Your task to perform on an android device: turn off improve location accuracy Image 0: 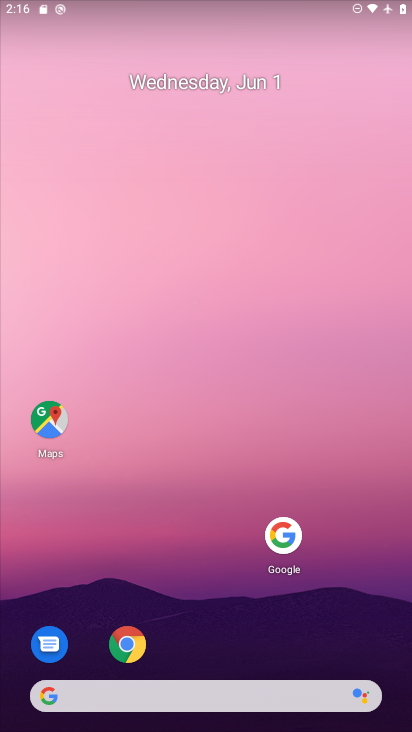
Step 0: drag from (164, 688) to (236, 198)
Your task to perform on an android device: turn off improve location accuracy Image 1: 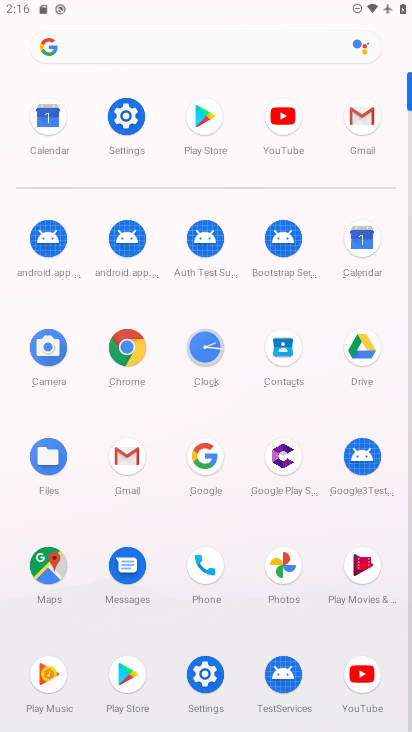
Step 1: click (122, 118)
Your task to perform on an android device: turn off improve location accuracy Image 2: 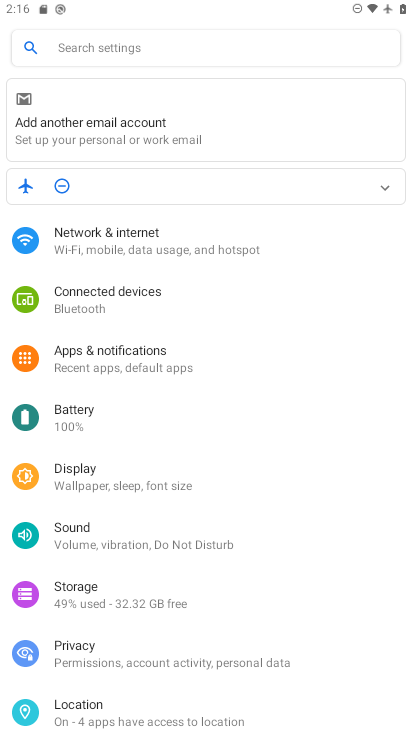
Step 2: drag from (180, 623) to (192, 157)
Your task to perform on an android device: turn off improve location accuracy Image 3: 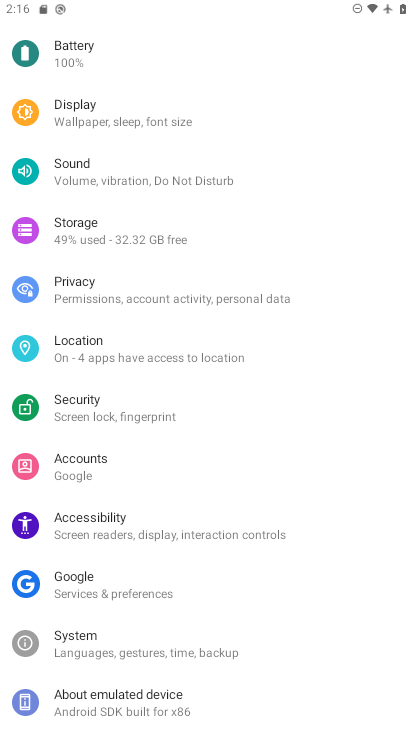
Step 3: click (82, 352)
Your task to perform on an android device: turn off improve location accuracy Image 4: 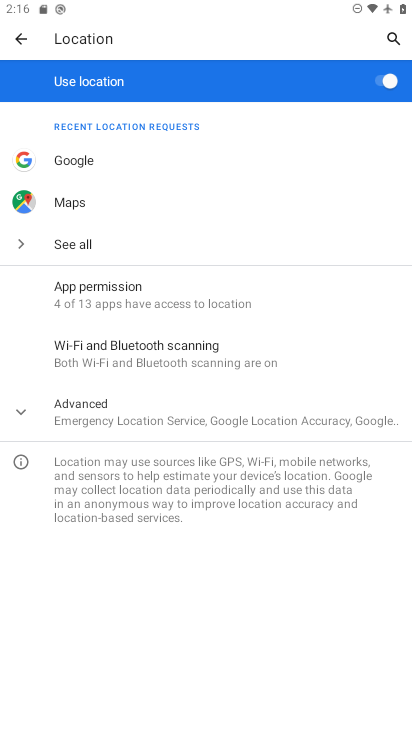
Step 4: click (96, 417)
Your task to perform on an android device: turn off improve location accuracy Image 5: 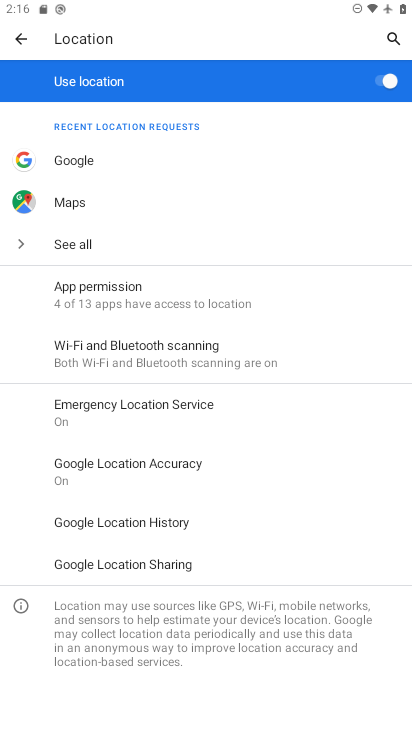
Step 5: click (126, 463)
Your task to perform on an android device: turn off improve location accuracy Image 6: 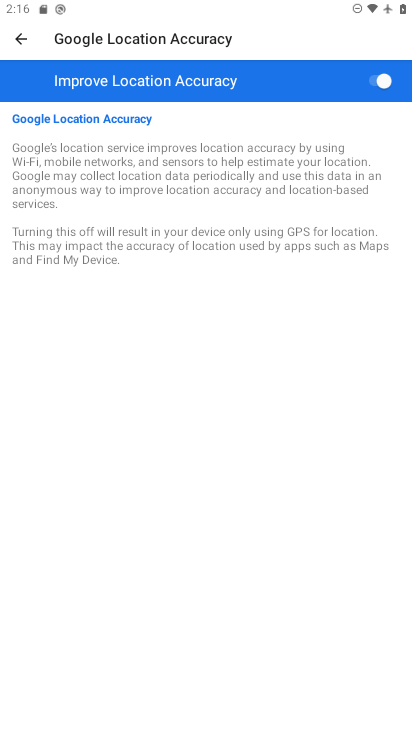
Step 6: click (374, 85)
Your task to perform on an android device: turn off improve location accuracy Image 7: 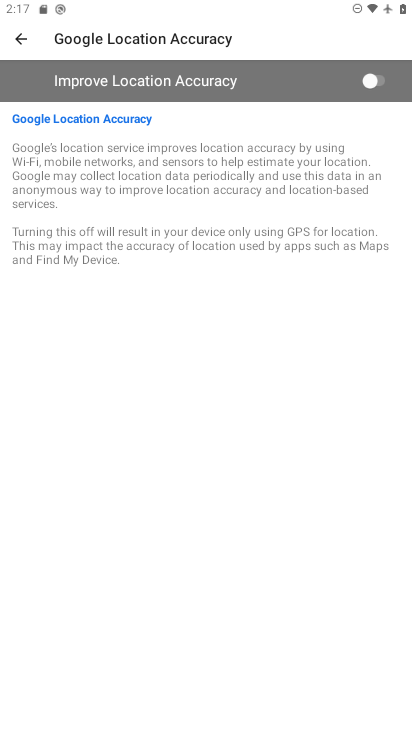
Step 7: task complete